Your task to perform on an android device: turn on showing notifications on the lock screen Image 0: 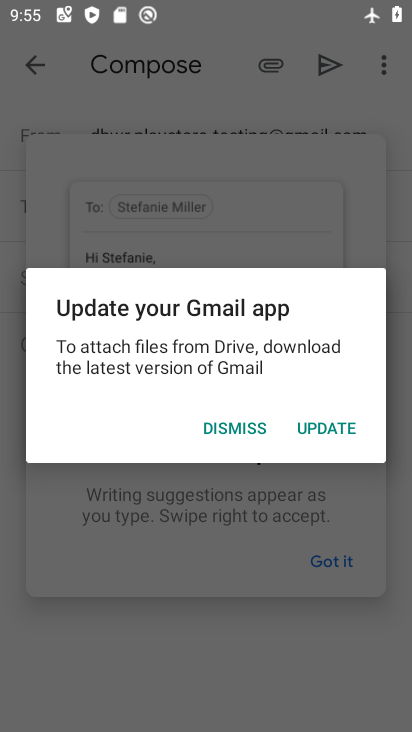
Step 0: press home button
Your task to perform on an android device: turn on showing notifications on the lock screen Image 1: 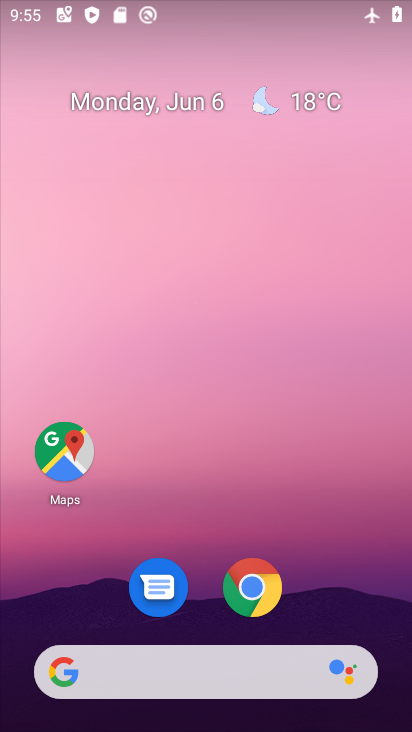
Step 1: drag from (329, 557) to (353, 159)
Your task to perform on an android device: turn on showing notifications on the lock screen Image 2: 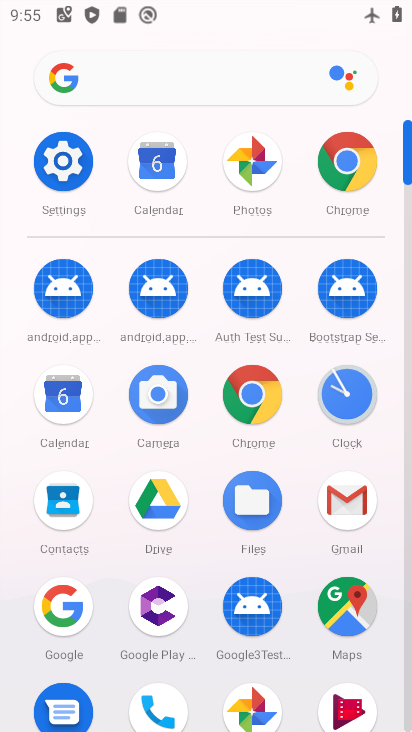
Step 2: click (57, 148)
Your task to perform on an android device: turn on showing notifications on the lock screen Image 3: 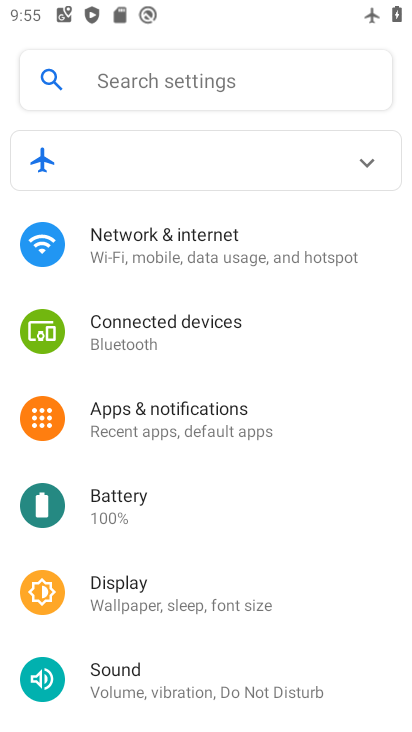
Step 3: click (229, 427)
Your task to perform on an android device: turn on showing notifications on the lock screen Image 4: 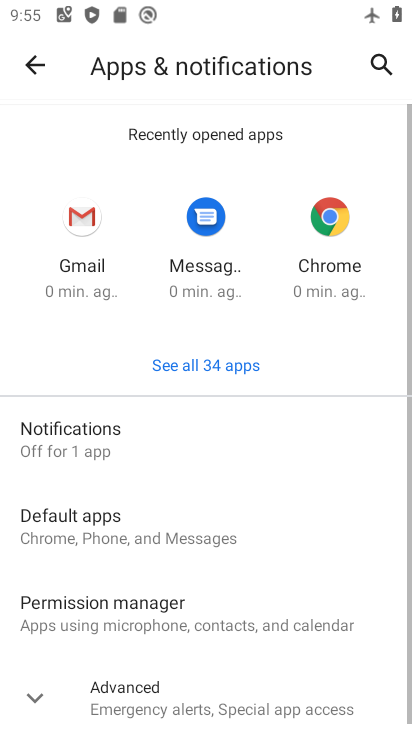
Step 4: click (120, 442)
Your task to perform on an android device: turn on showing notifications on the lock screen Image 5: 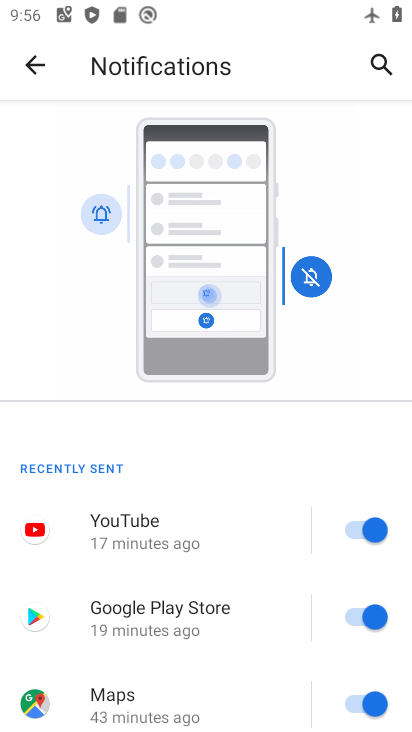
Step 5: drag from (193, 477) to (261, 106)
Your task to perform on an android device: turn on showing notifications on the lock screen Image 6: 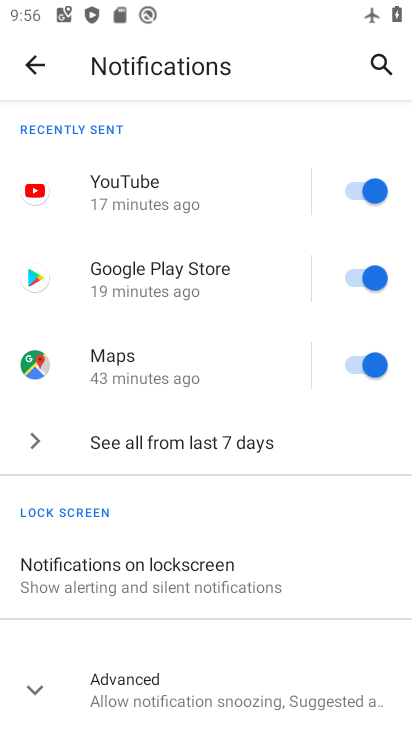
Step 6: click (169, 525)
Your task to perform on an android device: turn on showing notifications on the lock screen Image 7: 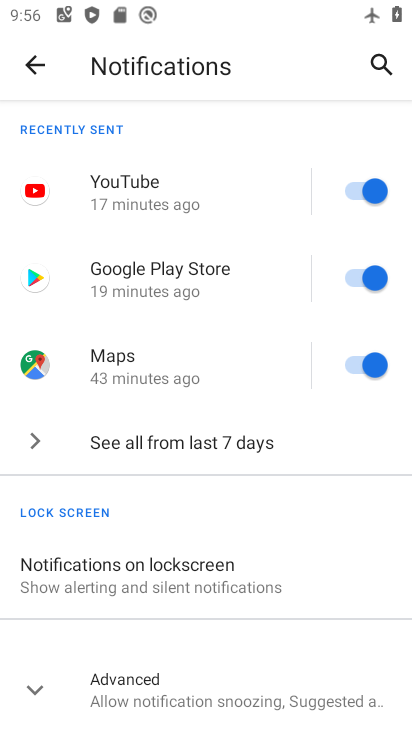
Step 7: click (167, 569)
Your task to perform on an android device: turn on showing notifications on the lock screen Image 8: 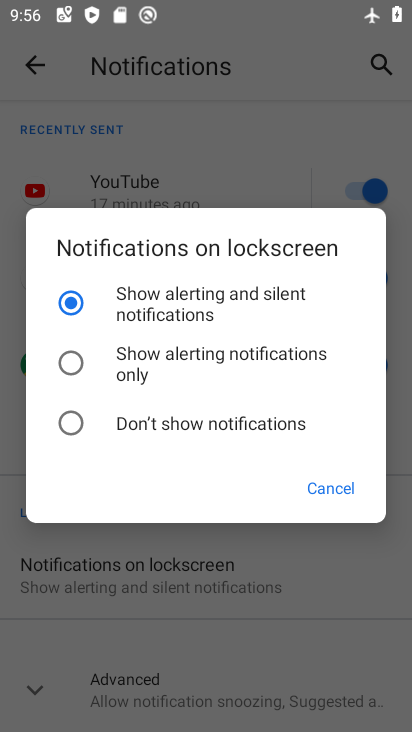
Step 8: click (254, 355)
Your task to perform on an android device: turn on showing notifications on the lock screen Image 9: 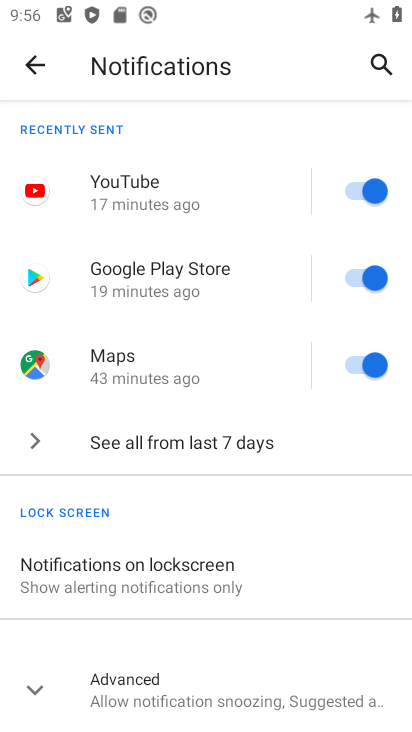
Step 9: task complete